Your task to perform on an android device: Go to settings Image 0: 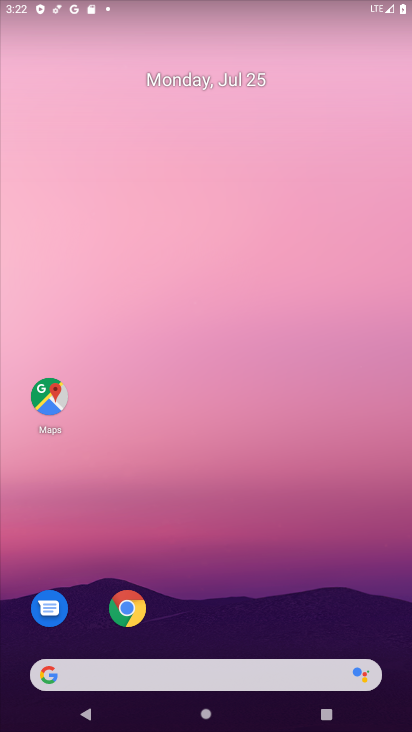
Step 0: press home button
Your task to perform on an android device: Go to settings Image 1: 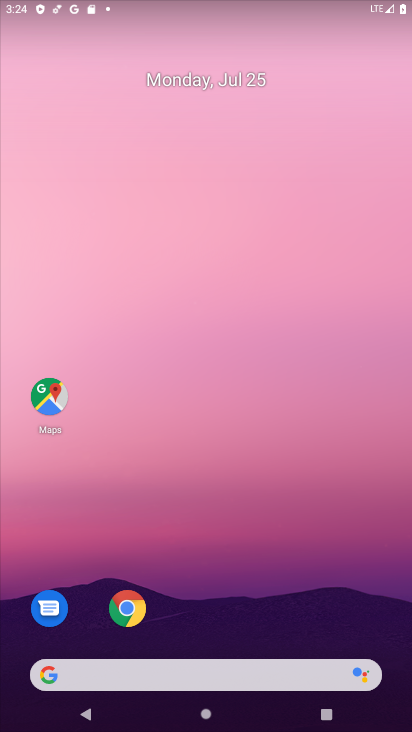
Step 1: drag from (28, 501) to (209, 88)
Your task to perform on an android device: Go to settings Image 2: 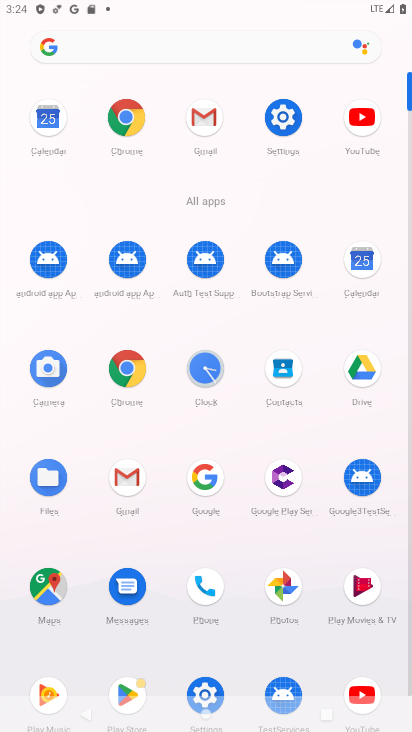
Step 2: click (263, 124)
Your task to perform on an android device: Go to settings Image 3: 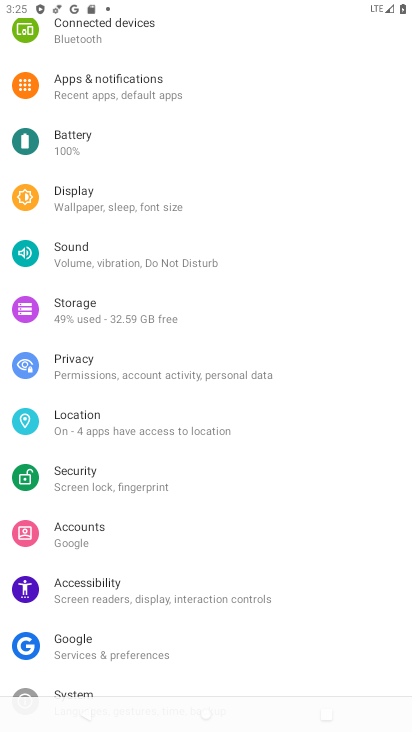
Step 3: task complete